Your task to perform on an android device: Open internet settings Image 0: 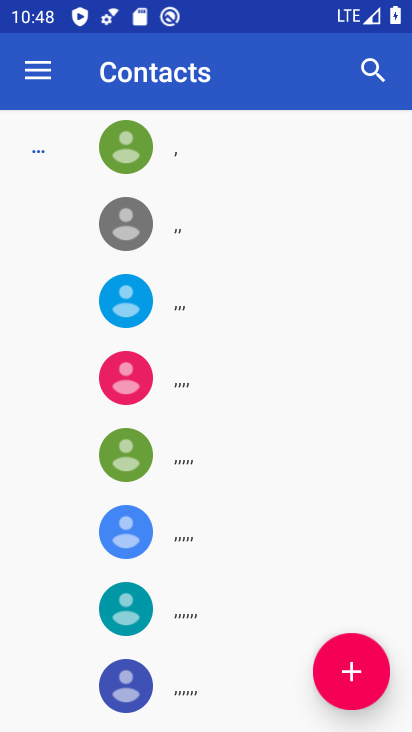
Step 0: press home button
Your task to perform on an android device: Open internet settings Image 1: 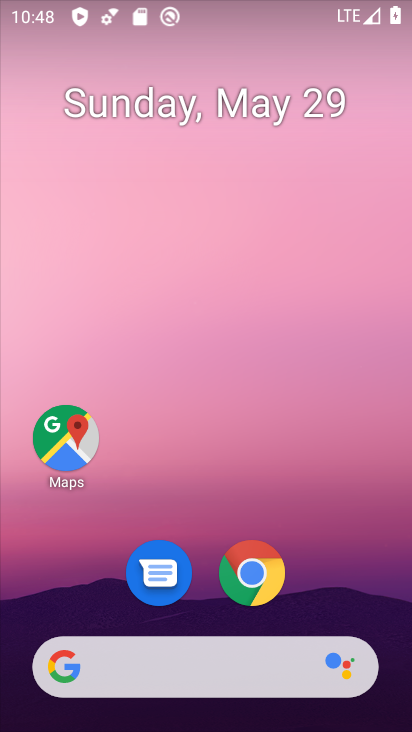
Step 1: drag from (366, 588) to (200, 46)
Your task to perform on an android device: Open internet settings Image 2: 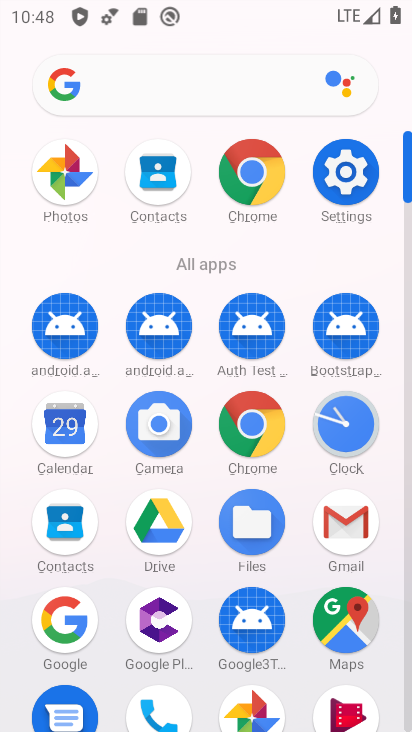
Step 2: click (356, 178)
Your task to perform on an android device: Open internet settings Image 3: 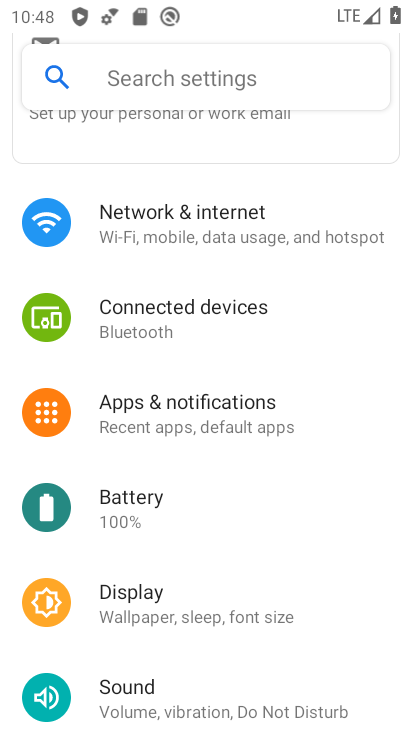
Step 3: click (183, 206)
Your task to perform on an android device: Open internet settings Image 4: 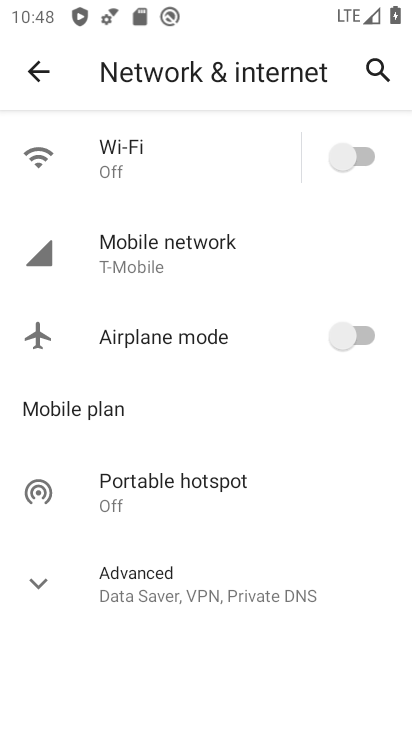
Step 4: click (132, 132)
Your task to perform on an android device: Open internet settings Image 5: 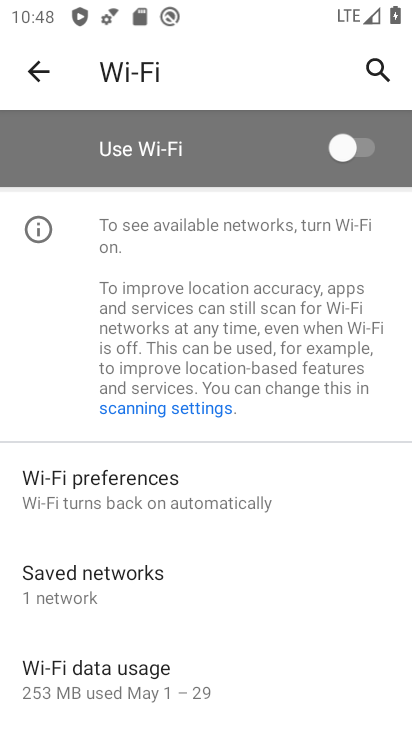
Step 5: task complete